Your task to perform on an android device: open app "Spotify" Image 0: 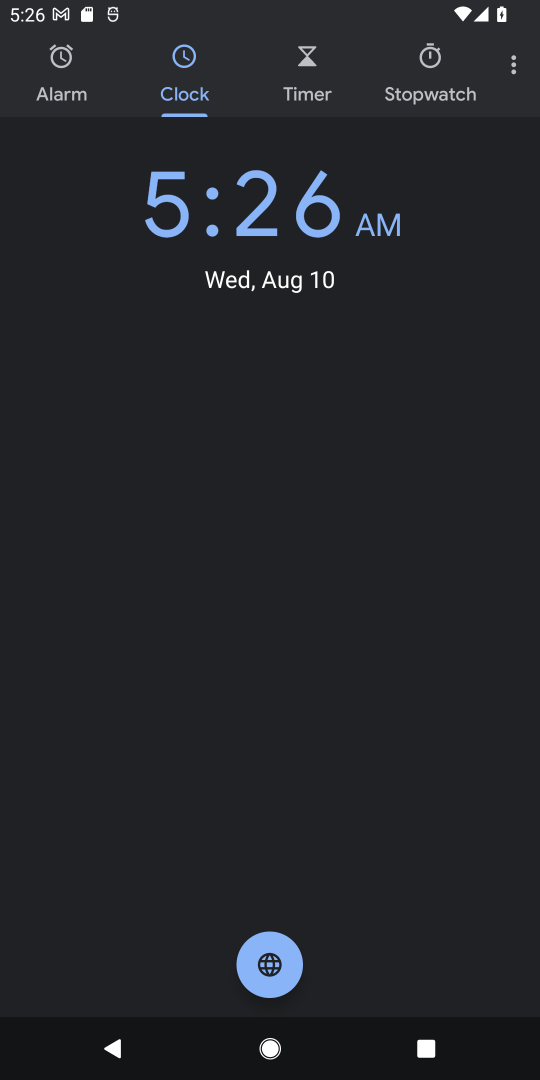
Step 0: press home button
Your task to perform on an android device: open app "Spotify" Image 1: 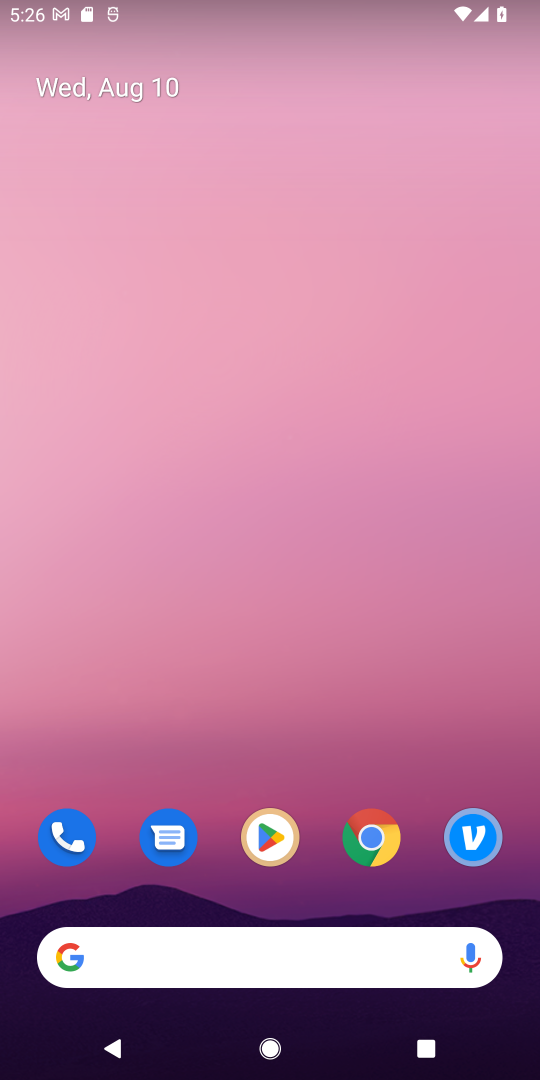
Step 1: click (263, 838)
Your task to perform on an android device: open app "Spotify" Image 2: 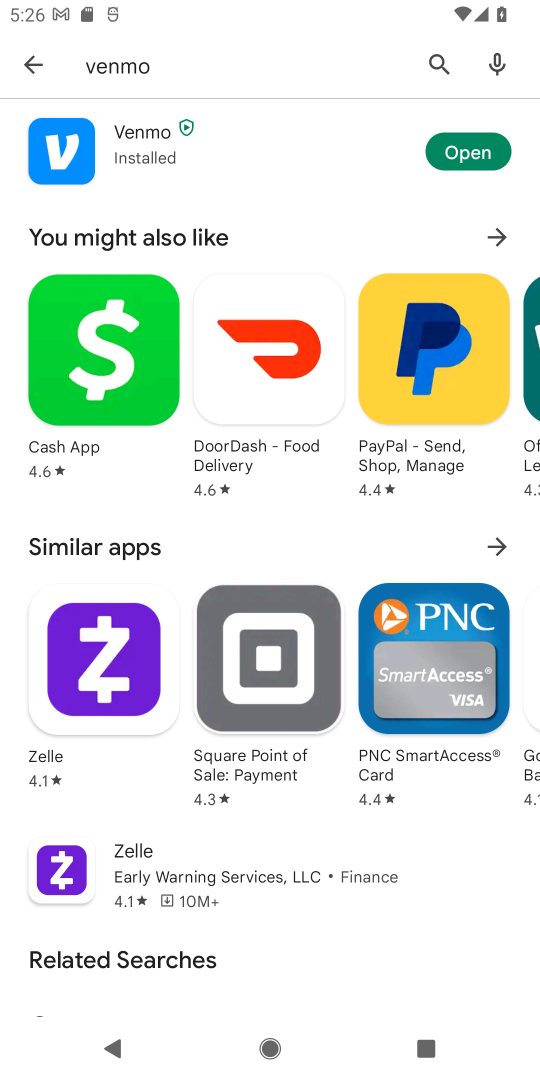
Step 2: click (430, 60)
Your task to perform on an android device: open app "Spotify" Image 3: 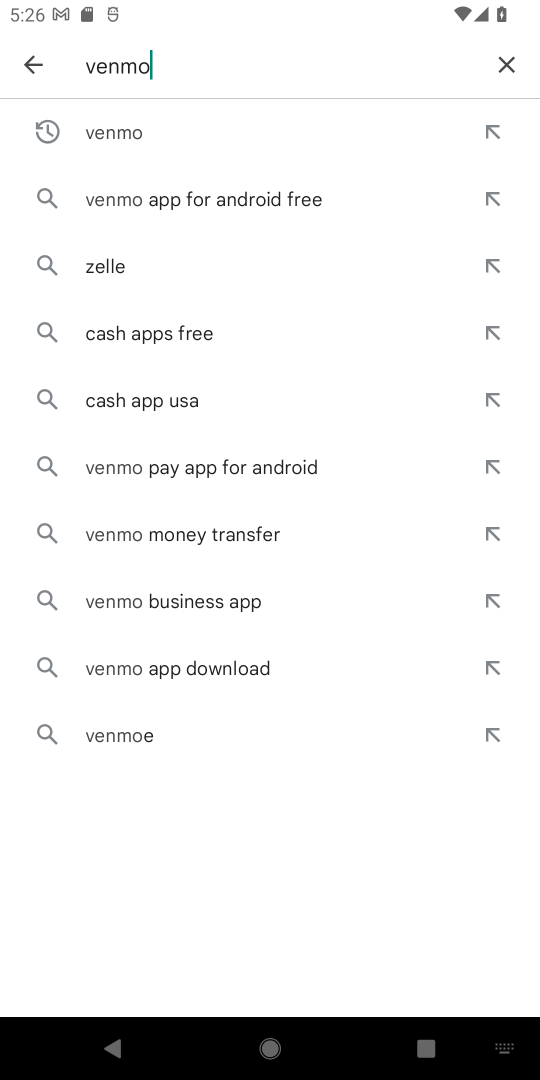
Step 3: click (506, 58)
Your task to perform on an android device: open app "Spotify" Image 4: 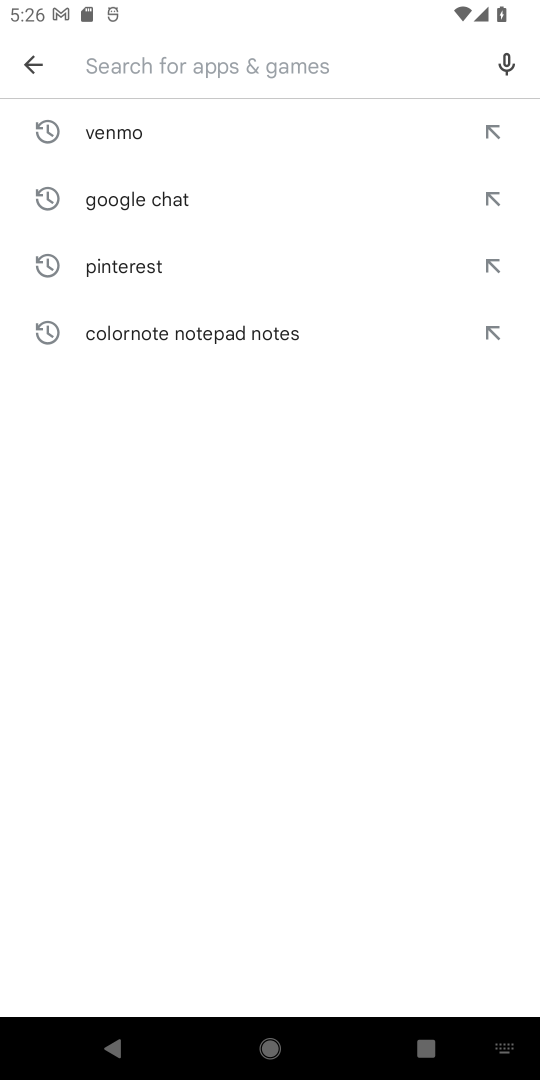
Step 4: type "Spotify"
Your task to perform on an android device: open app "Spotify" Image 5: 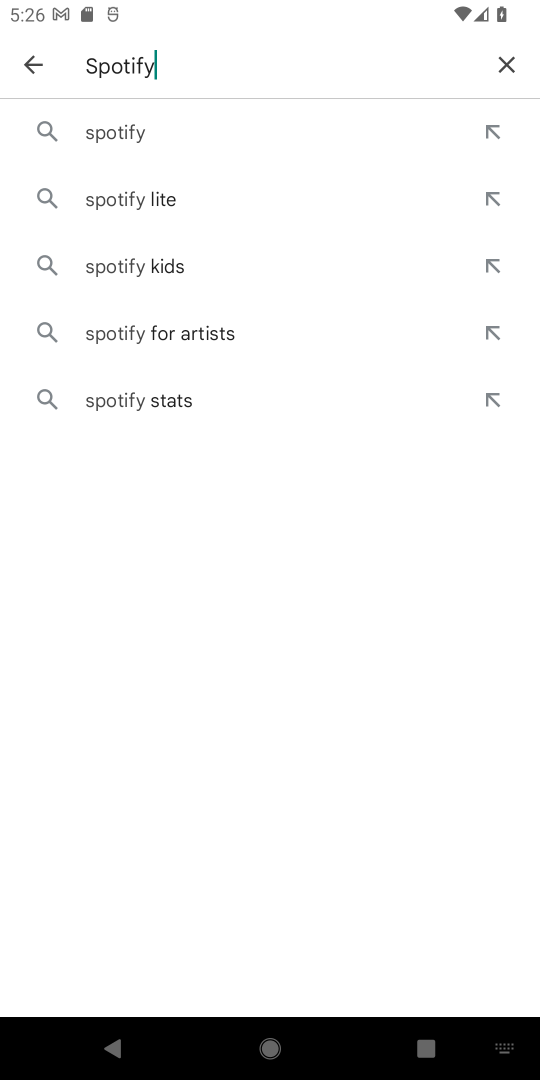
Step 5: click (113, 122)
Your task to perform on an android device: open app "Spotify" Image 6: 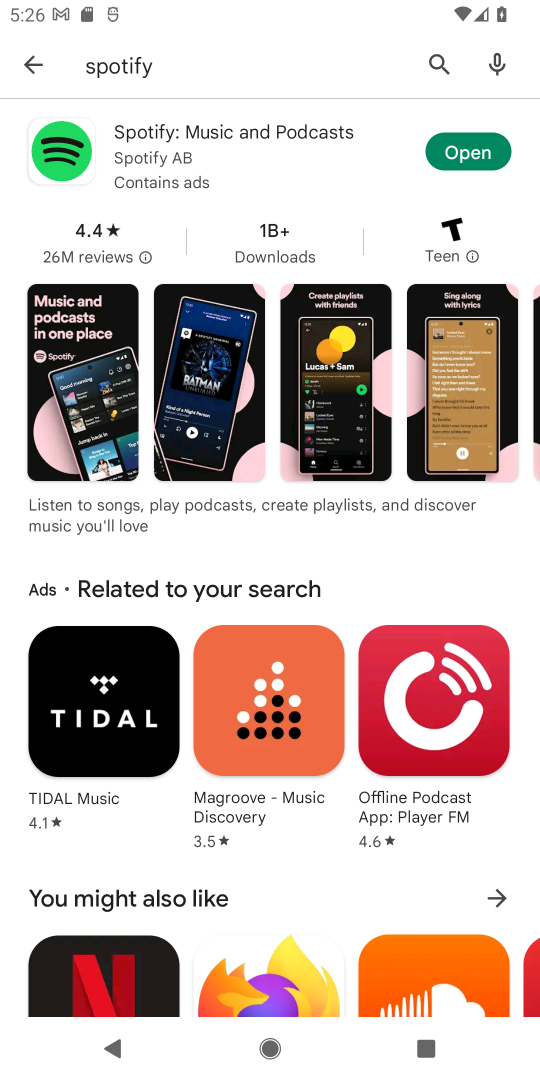
Step 6: click (472, 148)
Your task to perform on an android device: open app "Spotify" Image 7: 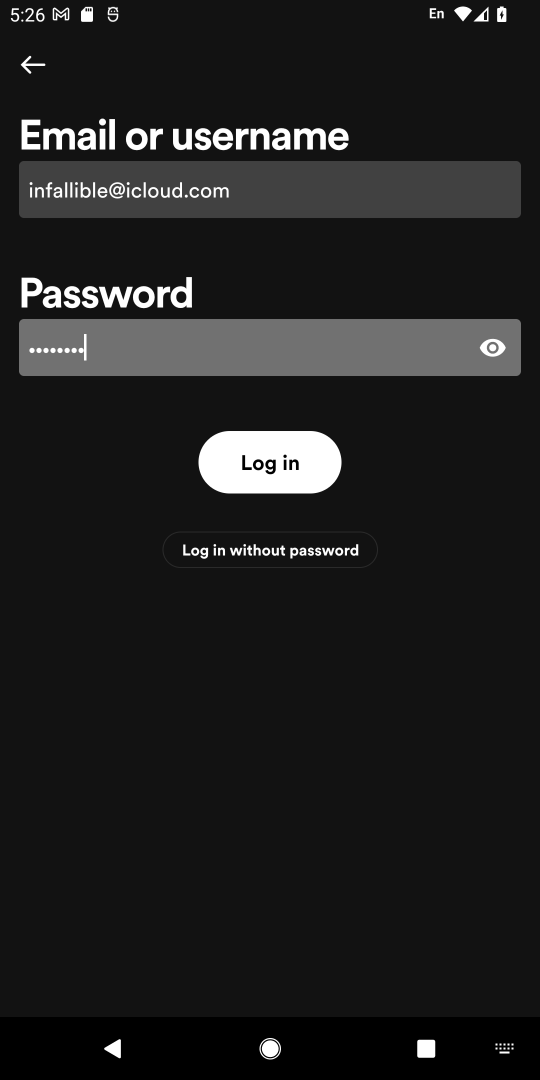
Step 7: task complete